Your task to perform on an android device: clear history in the chrome app Image 0: 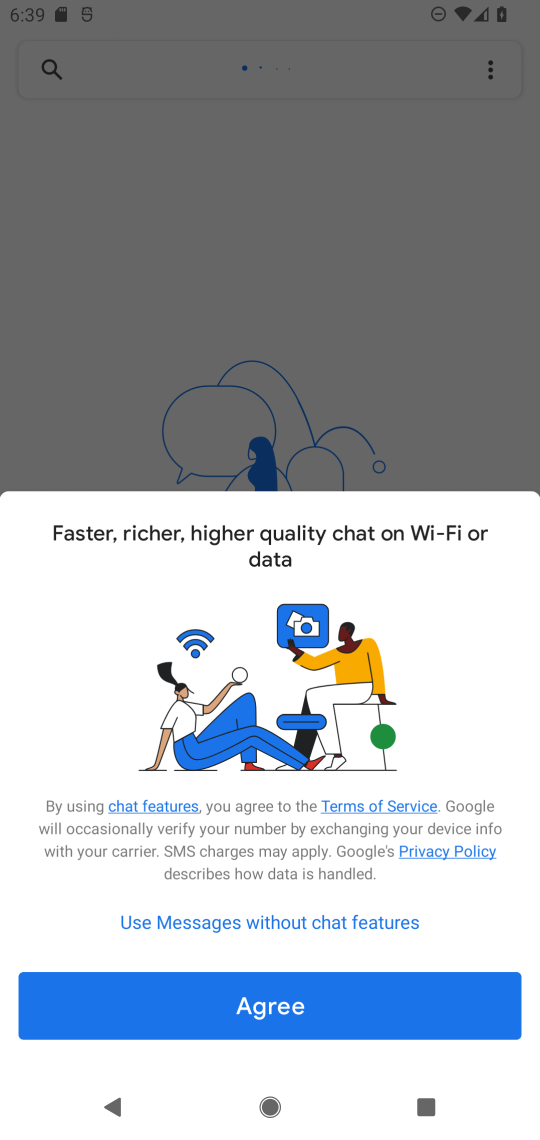
Step 0: press home button
Your task to perform on an android device: clear history in the chrome app Image 1: 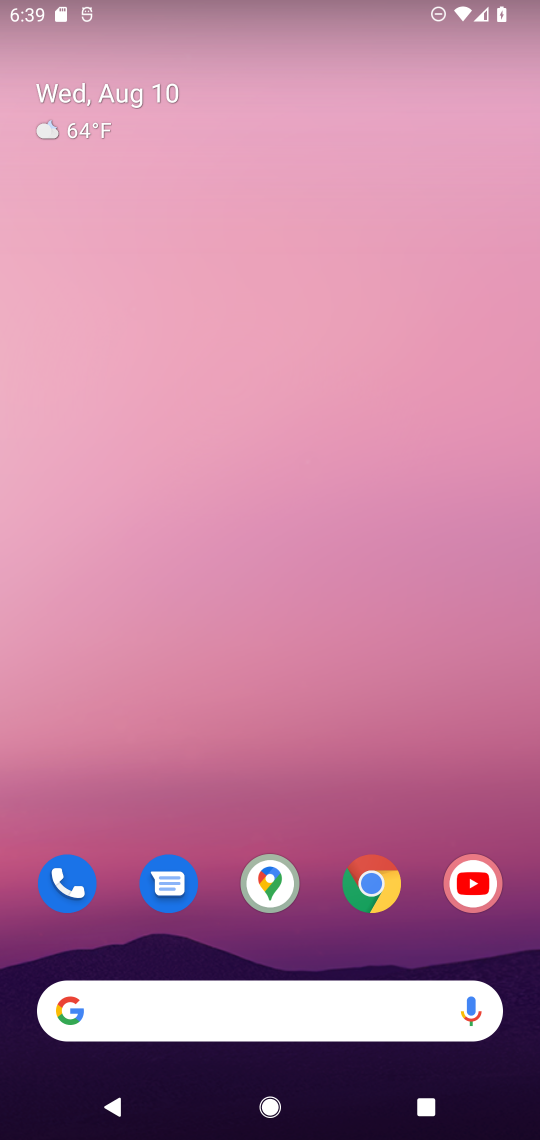
Step 1: drag from (320, 913) to (257, 258)
Your task to perform on an android device: clear history in the chrome app Image 2: 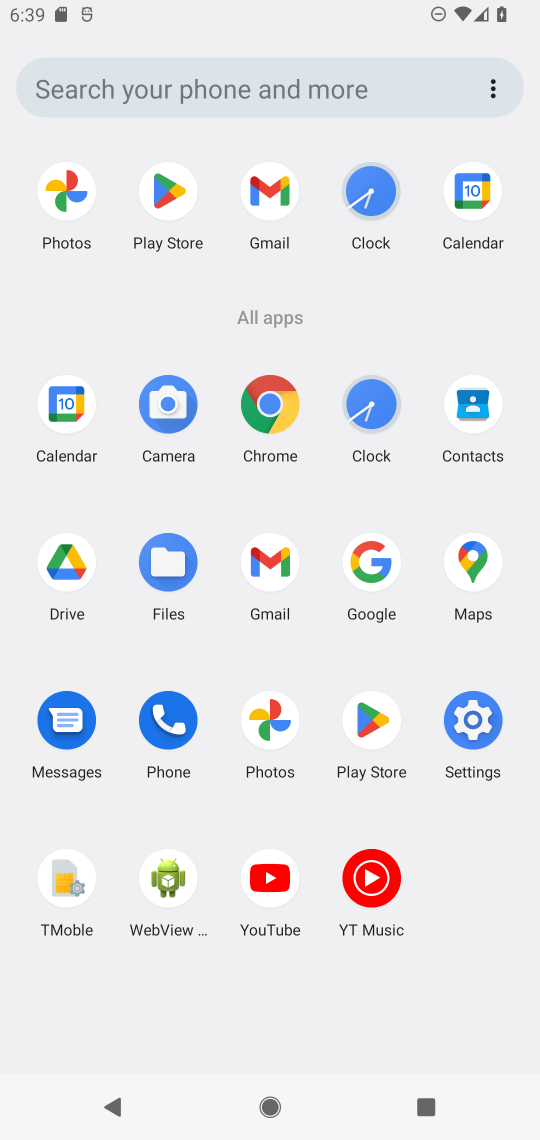
Step 2: click (268, 397)
Your task to perform on an android device: clear history in the chrome app Image 3: 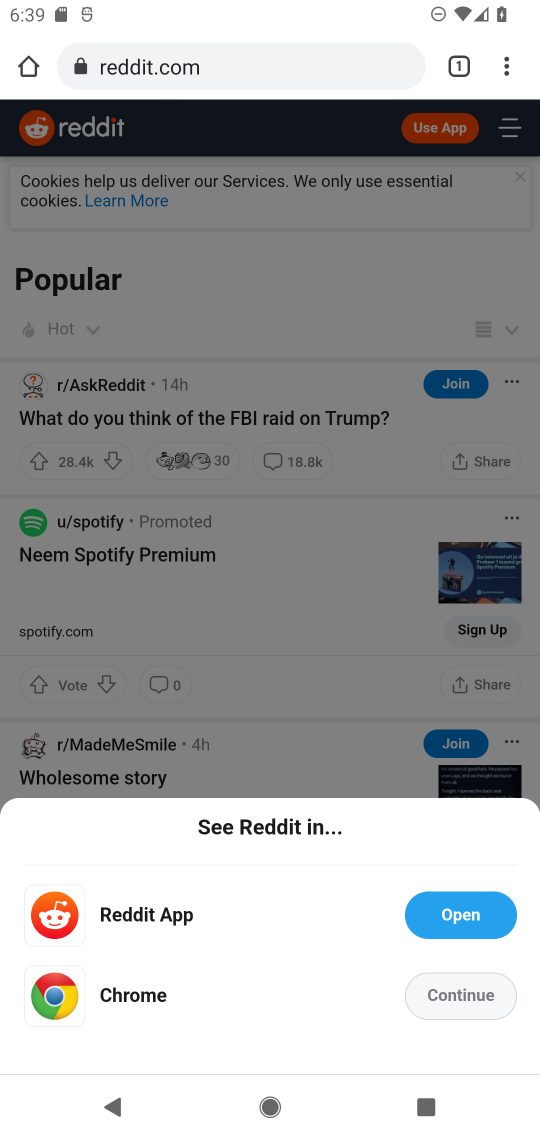
Step 3: drag from (500, 48) to (332, 259)
Your task to perform on an android device: clear history in the chrome app Image 4: 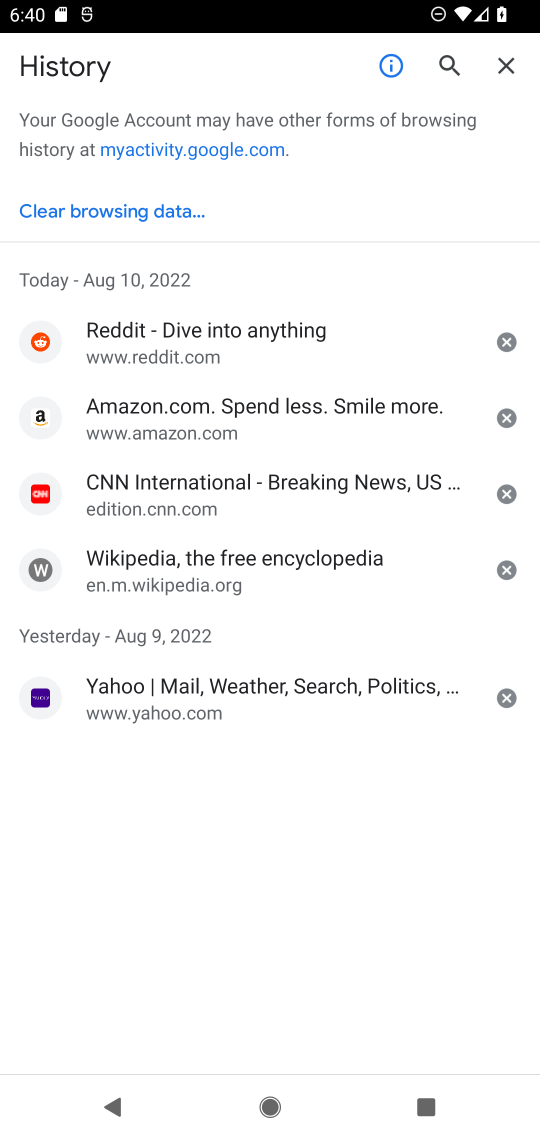
Step 4: click (26, 328)
Your task to perform on an android device: clear history in the chrome app Image 5: 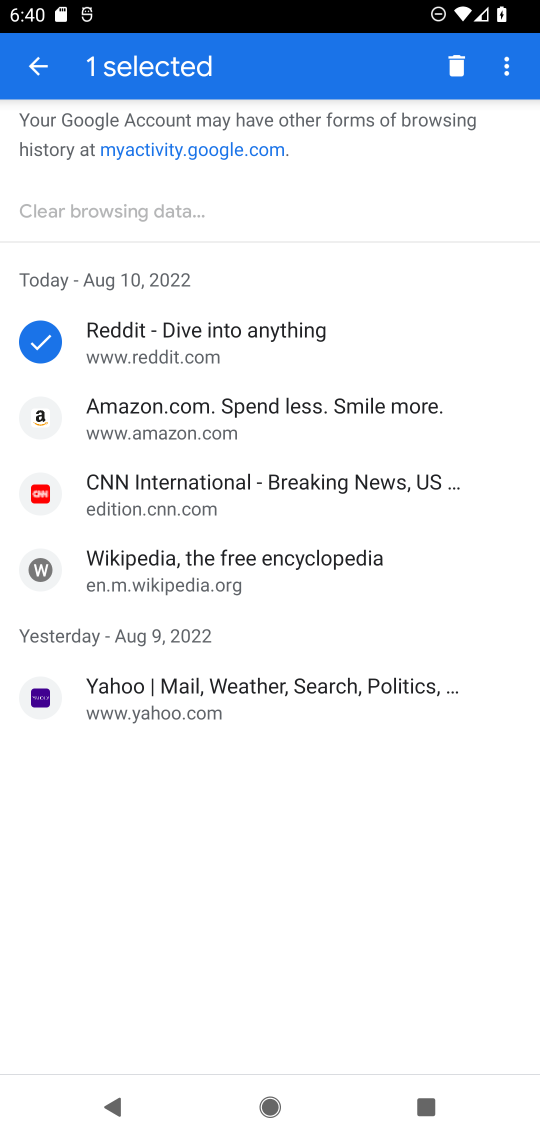
Step 5: click (40, 411)
Your task to perform on an android device: clear history in the chrome app Image 6: 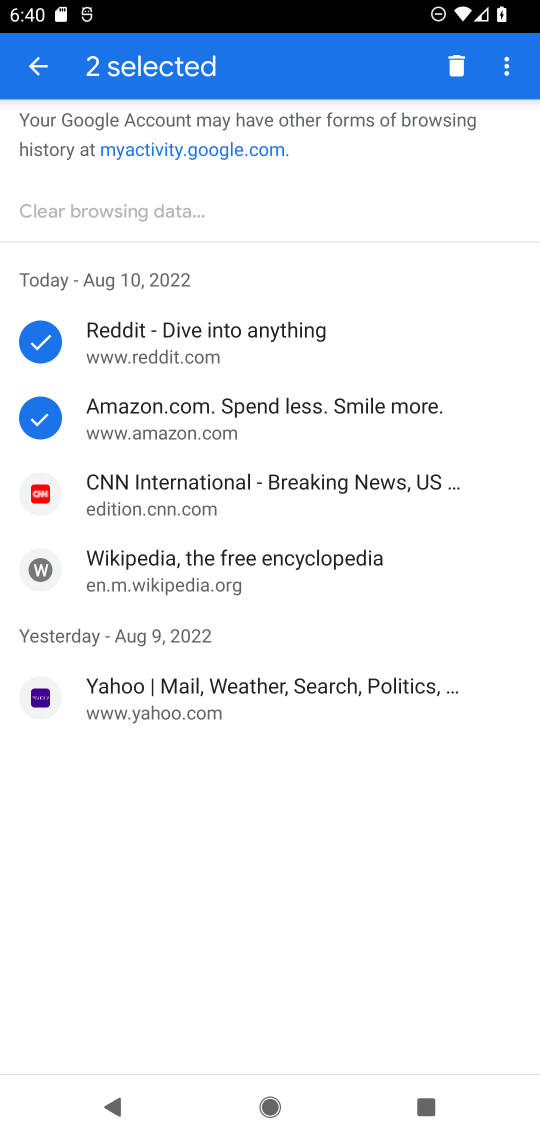
Step 6: click (37, 489)
Your task to perform on an android device: clear history in the chrome app Image 7: 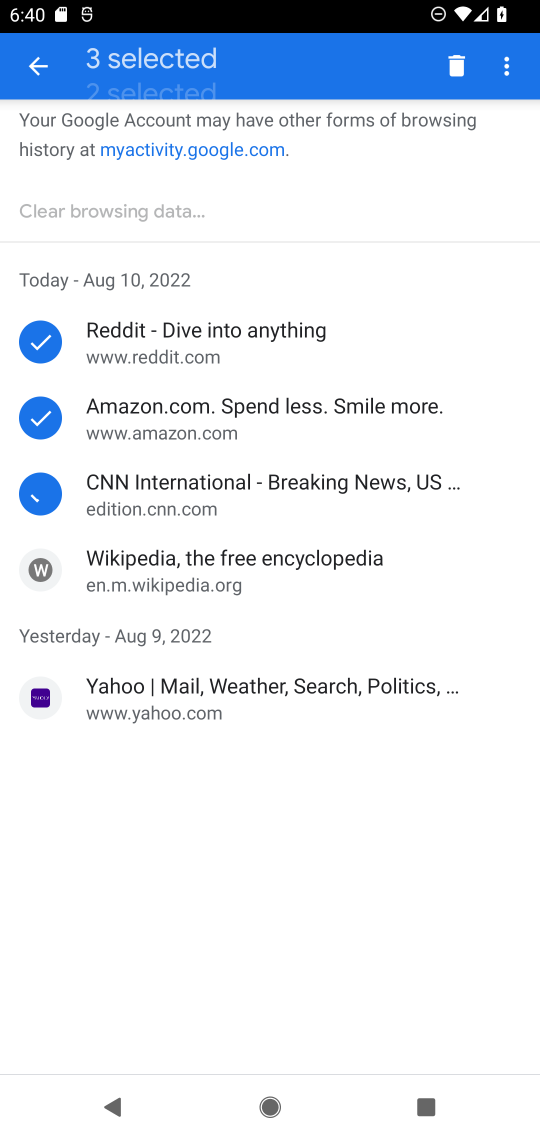
Step 7: click (34, 569)
Your task to perform on an android device: clear history in the chrome app Image 8: 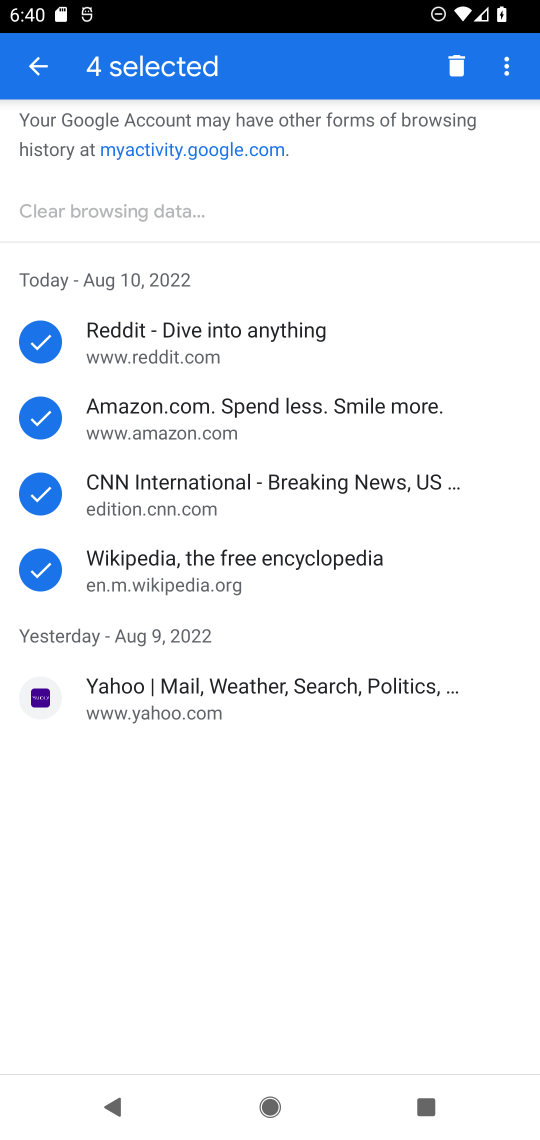
Step 8: click (36, 672)
Your task to perform on an android device: clear history in the chrome app Image 9: 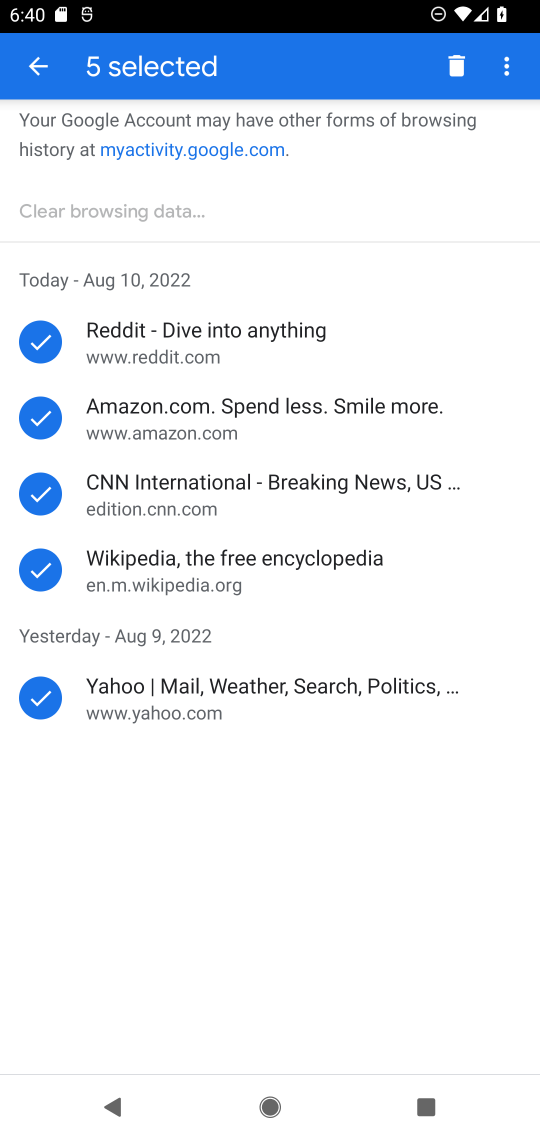
Step 9: click (458, 76)
Your task to perform on an android device: clear history in the chrome app Image 10: 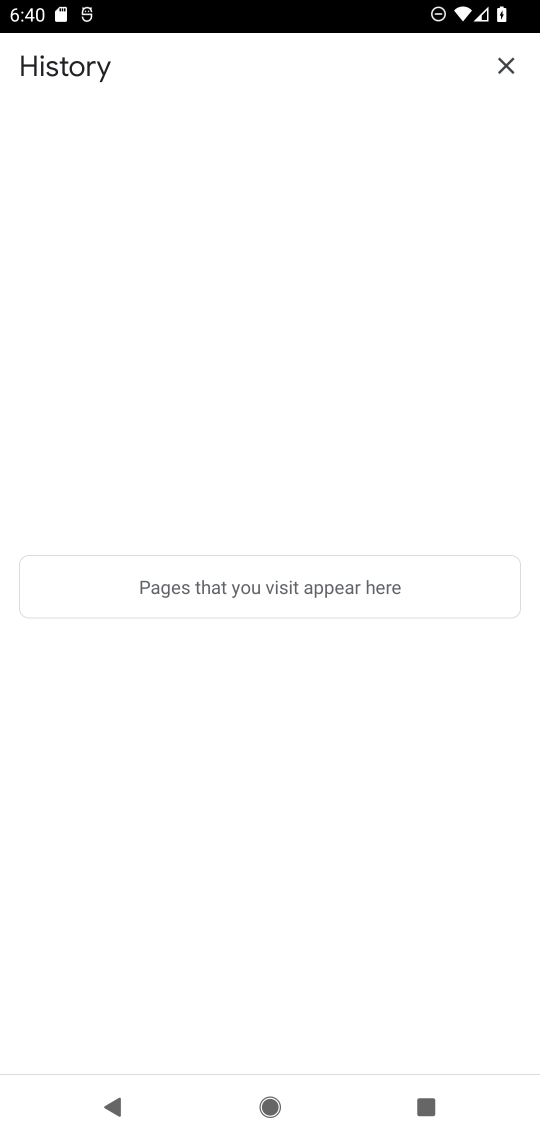
Step 10: task complete